Your task to perform on an android device: turn on the 12-hour format for clock Image 0: 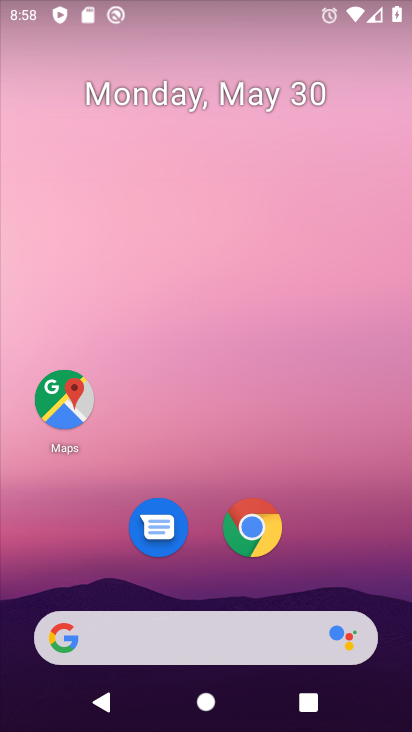
Step 0: drag from (192, 577) to (248, 67)
Your task to perform on an android device: turn on the 12-hour format for clock Image 1: 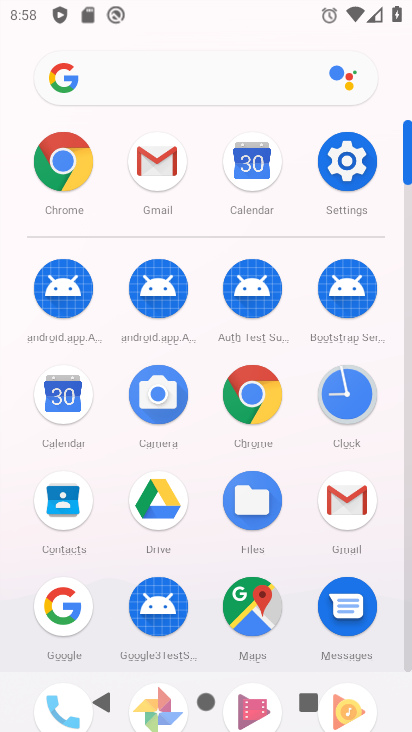
Step 1: click (338, 392)
Your task to perform on an android device: turn on the 12-hour format for clock Image 2: 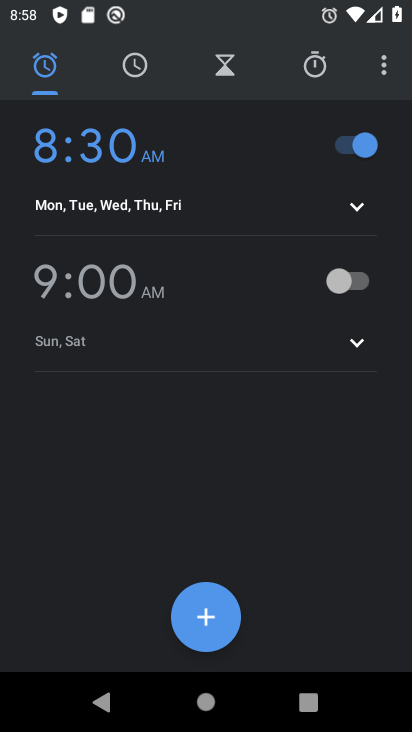
Step 2: click (399, 61)
Your task to perform on an android device: turn on the 12-hour format for clock Image 3: 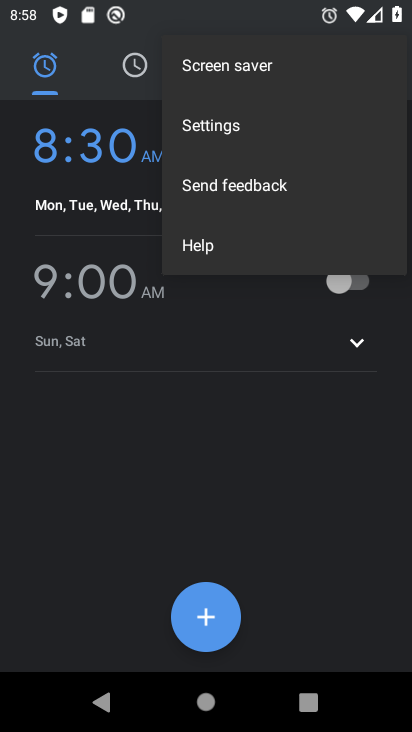
Step 3: click (243, 132)
Your task to perform on an android device: turn on the 12-hour format for clock Image 4: 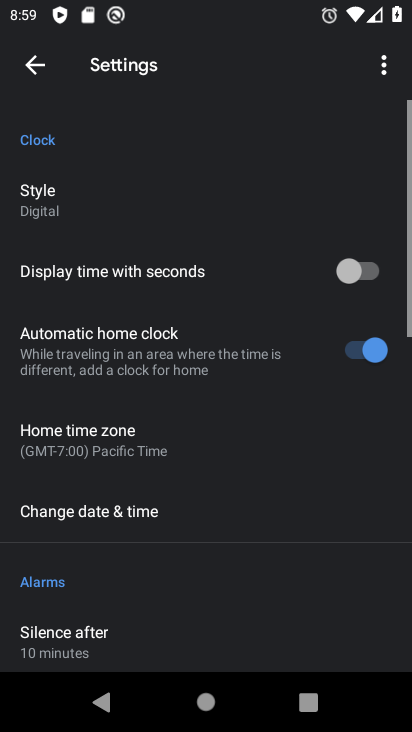
Step 4: drag from (144, 570) to (177, 303)
Your task to perform on an android device: turn on the 12-hour format for clock Image 5: 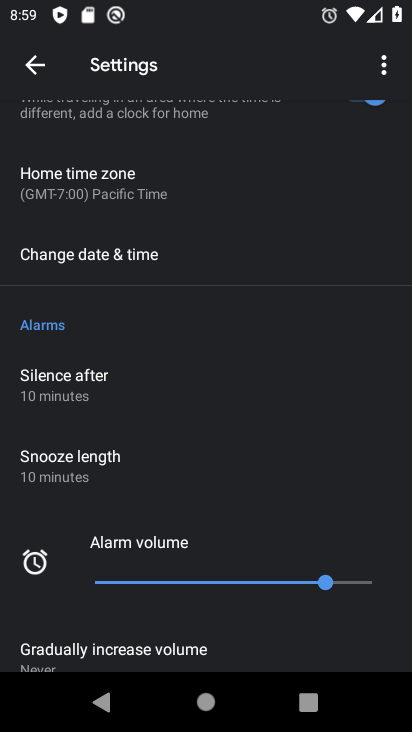
Step 5: click (163, 263)
Your task to perform on an android device: turn on the 12-hour format for clock Image 6: 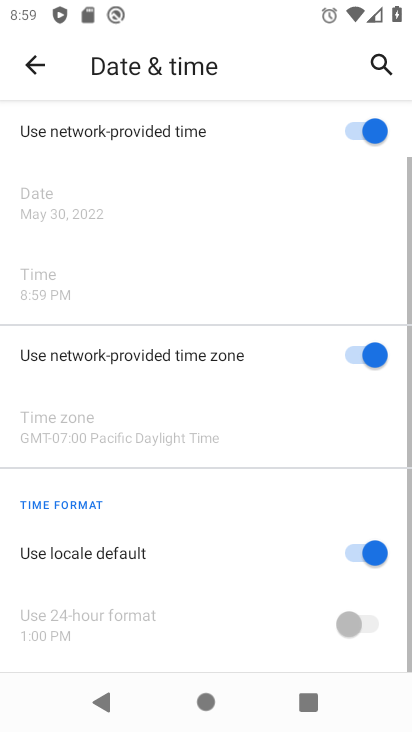
Step 6: task complete